Your task to perform on an android device: turn on sleep mode Image 0: 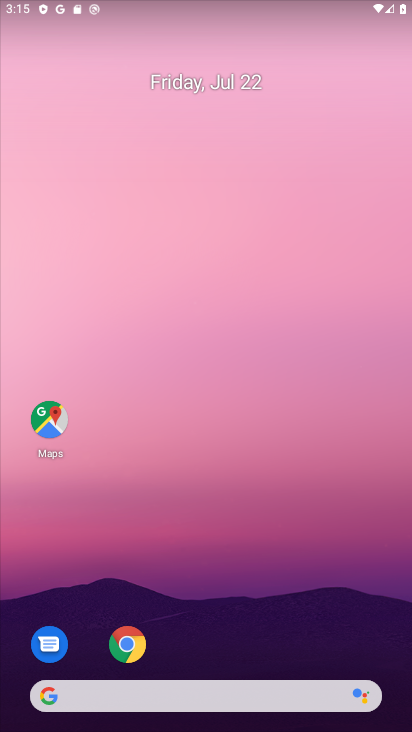
Step 0: drag from (218, 703) to (219, 152)
Your task to perform on an android device: turn on sleep mode Image 1: 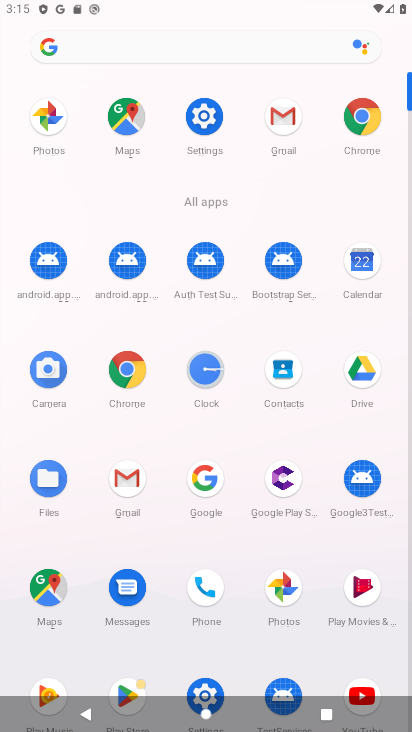
Step 1: click (213, 118)
Your task to perform on an android device: turn on sleep mode Image 2: 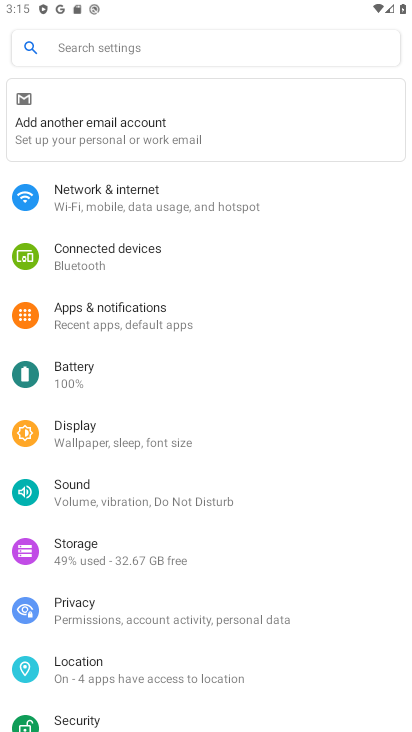
Step 2: click (128, 439)
Your task to perform on an android device: turn on sleep mode Image 3: 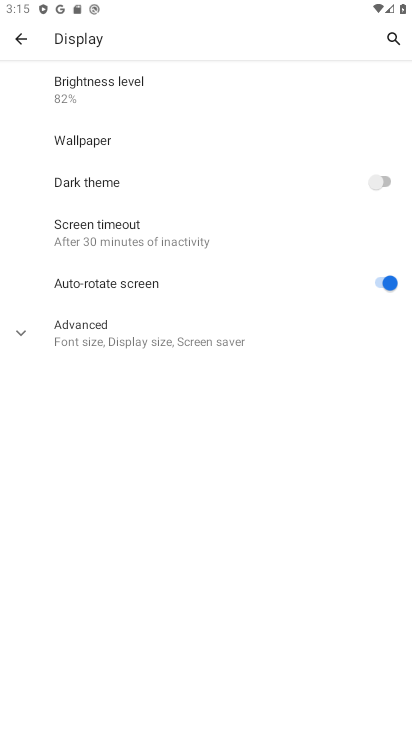
Step 3: task complete